Your task to perform on an android device: turn on wifi Image 0: 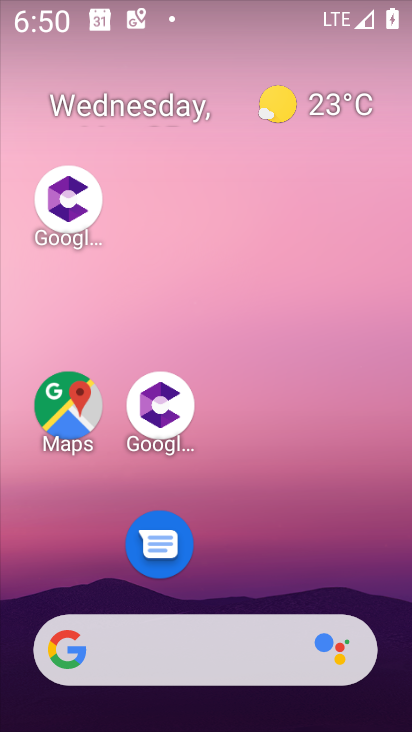
Step 0: drag from (253, 522) to (157, 28)
Your task to perform on an android device: turn on wifi Image 1: 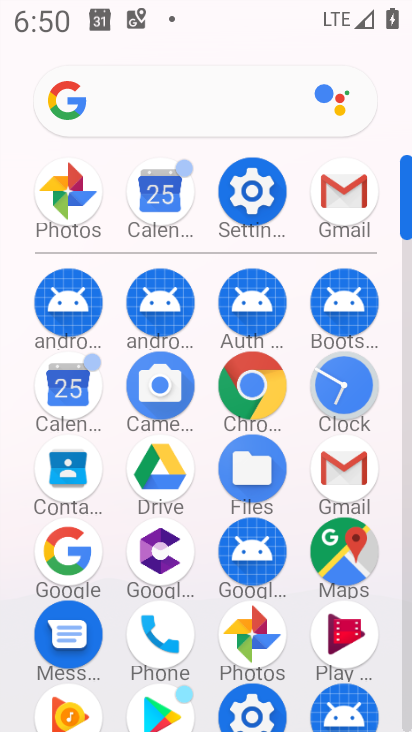
Step 1: click (251, 184)
Your task to perform on an android device: turn on wifi Image 2: 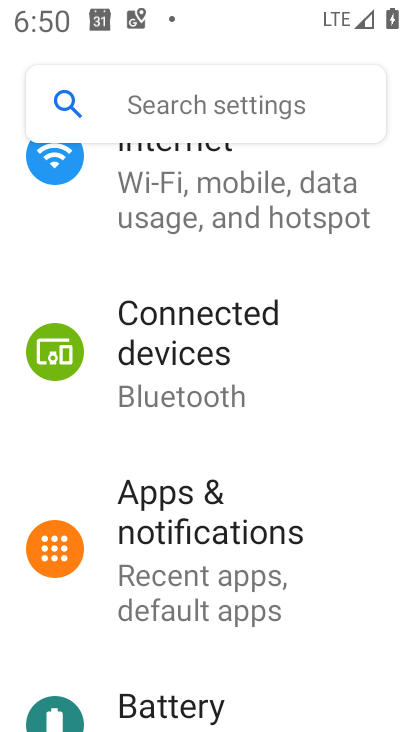
Step 2: click (191, 159)
Your task to perform on an android device: turn on wifi Image 3: 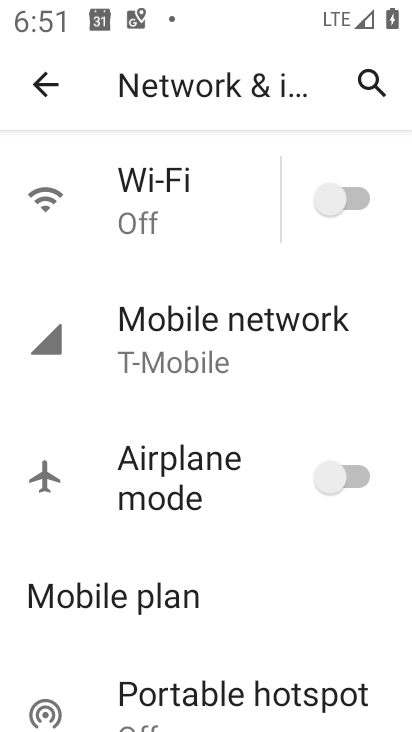
Step 3: click (329, 205)
Your task to perform on an android device: turn on wifi Image 4: 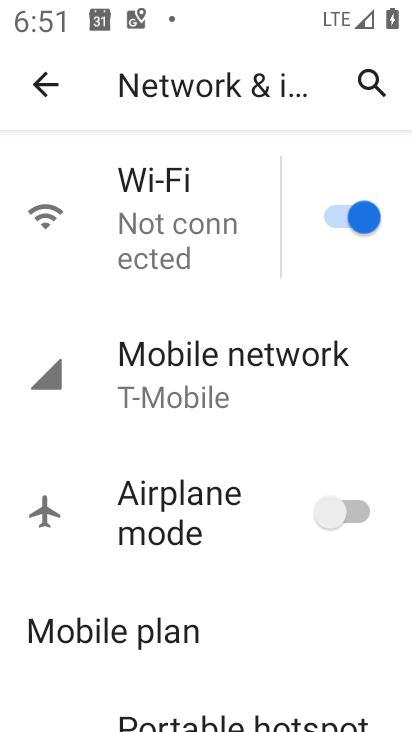
Step 4: task complete